Your task to perform on an android device: Go to notification settings Image 0: 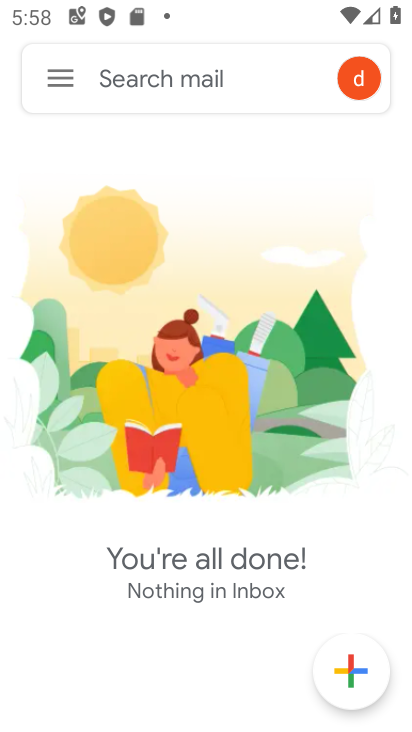
Step 0: press home button
Your task to perform on an android device: Go to notification settings Image 1: 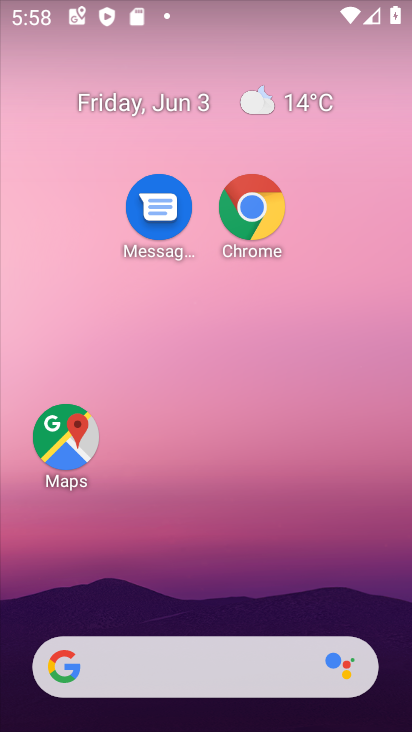
Step 1: drag from (164, 561) to (147, 302)
Your task to perform on an android device: Go to notification settings Image 2: 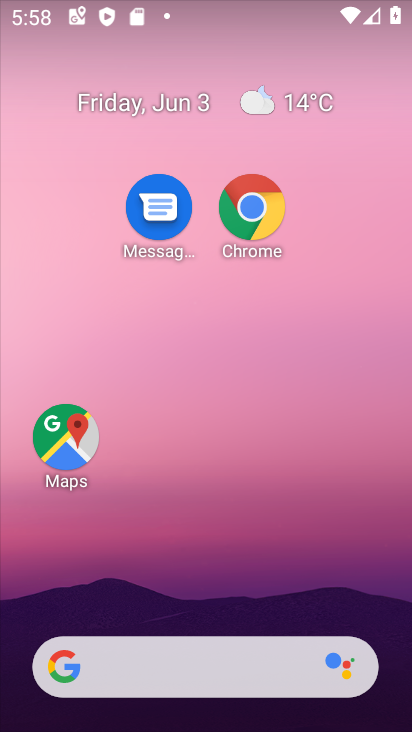
Step 2: drag from (217, 577) to (253, 241)
Your task to perform on an android device: Go to notification settings Image 3: 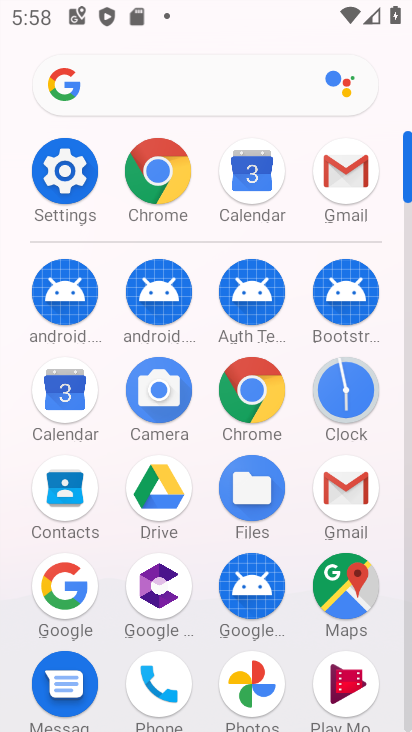
Step 3: click (61, 177)
Your task to perform on an android device: Go to notification settings Image 4: 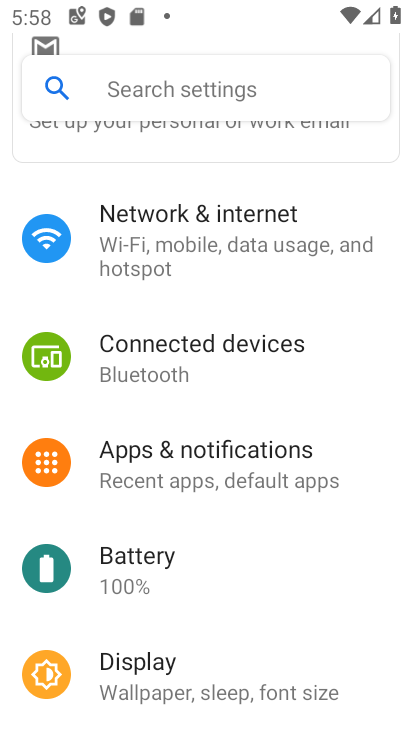
Step 4: drag from (240, 599) to (222, 278)
Your task to perform on an android device: Go to notification settings Image 5: 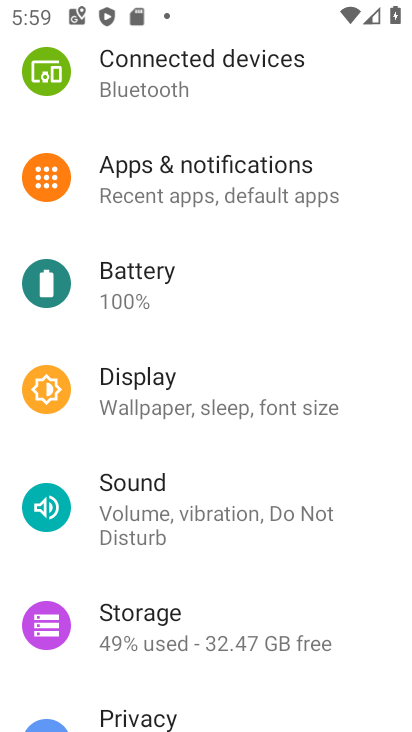
Step 5: click (186, 182)
Your task to perform on an android device: Go to notification settings Image 6: 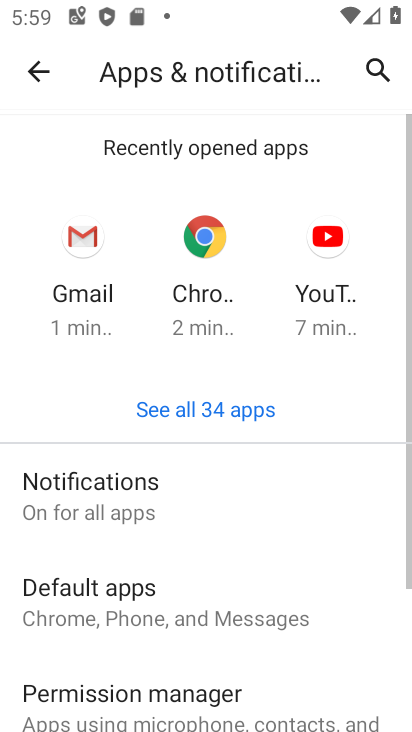
Step 6: click (113, 524)
Your task to perform on an android device: Go to notification settings Image 7: 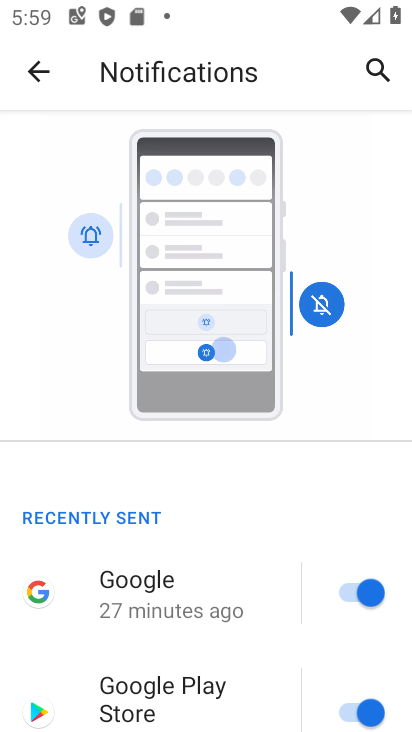
Step 7: task complete